Your task to perform on an android device: Go to Amazon Image 0: 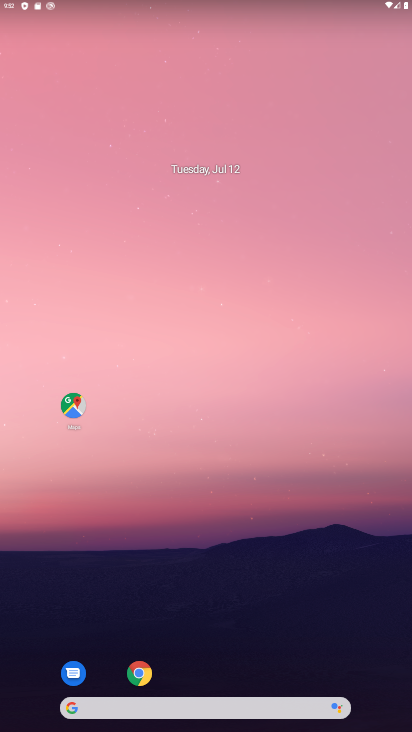
Step 0: drag from (288, 476) to (297, 122)
Your task to perform on an android device: Go to Amazon Image 1: 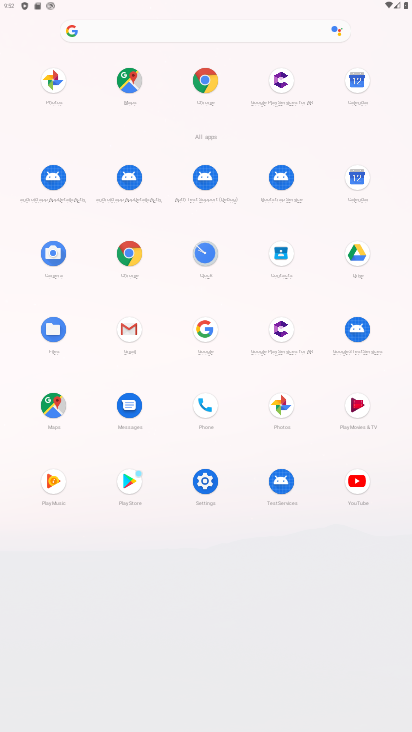
Step 1: click (205, 83)
Your task to perform on an android device: Go to Amazon Image 2: 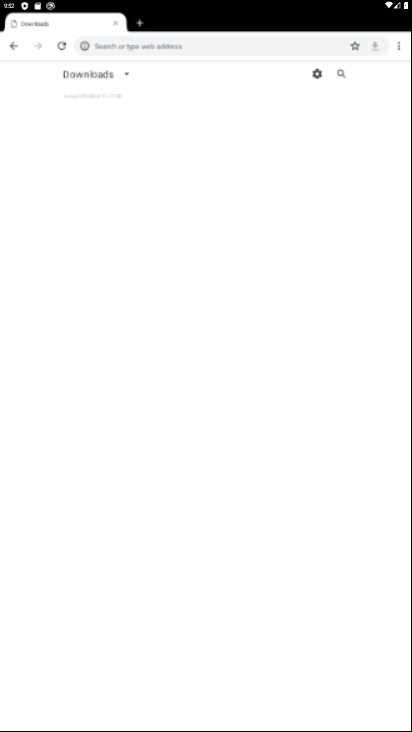
Step 2: click (201, 46)
Your task to perform on an android device: Go to Amazon Image 3: 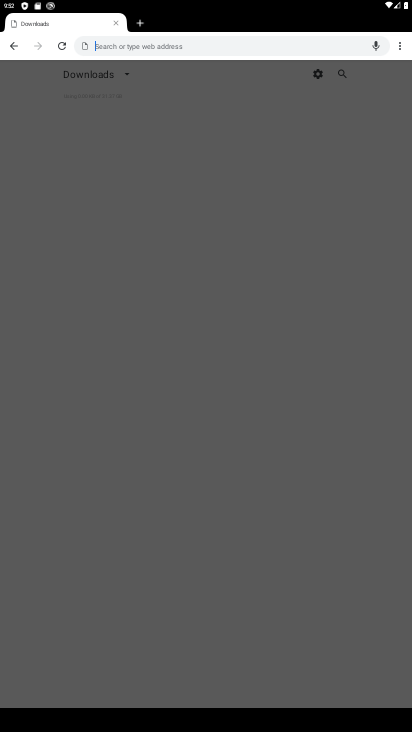
Step 3: type "amazon"
Your task to perform on an android device: Go to Amazon Image 4: 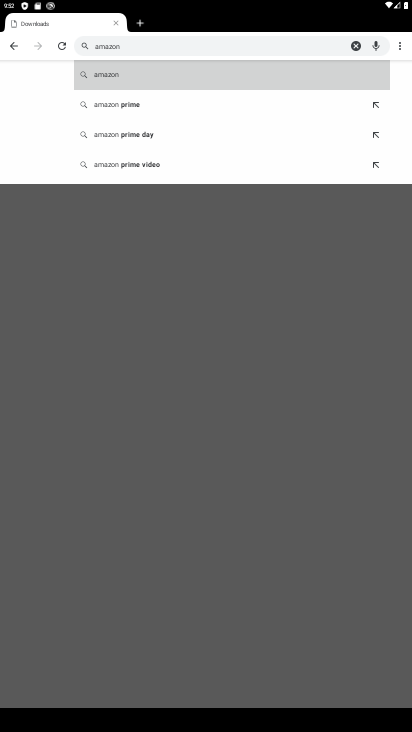
Step 4: click (95, 68)
Your task to perform on an android device: Go to Amazon Image 5: 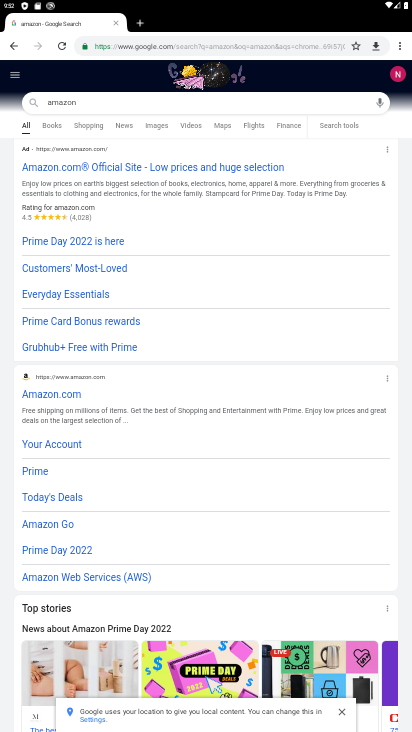
Step 5: click (72, 393)
Your task to perform on an android device: Go to Amazon Image 6: 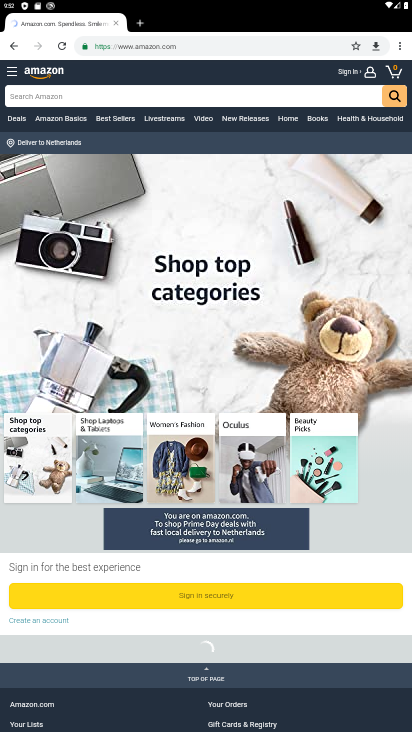
Step 6: task complete